Your task to perform on an android device: turn pop-ups off in chrome Image 0: 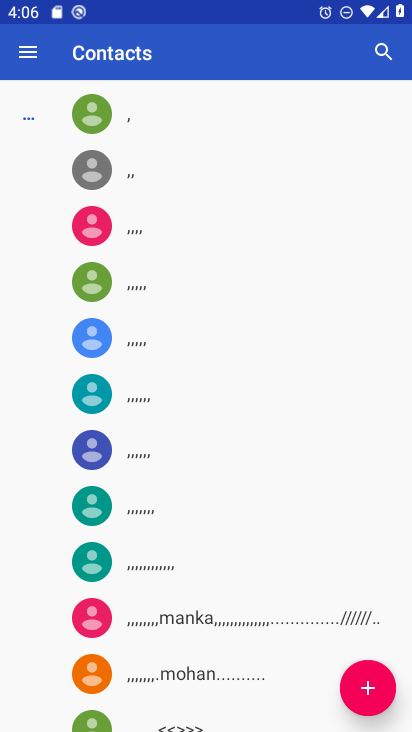
Step 0: press home button
Your task to perform on an android device: turn pop-ups off in chrome Image 1: 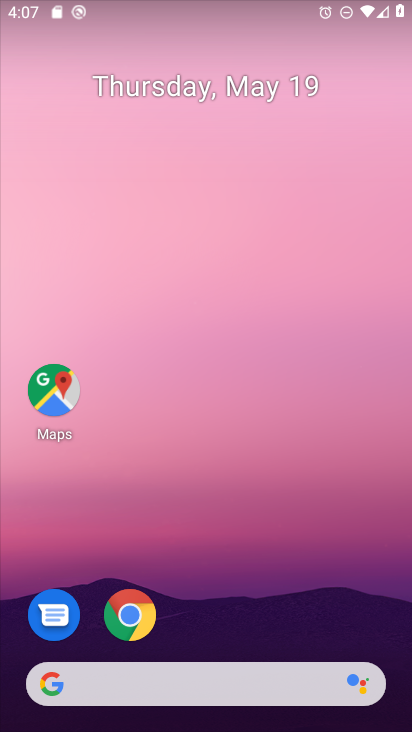
Step 1: drag from (288, 628) to (215, 230)
Your task to perform on an android device: turn pop-ups off in chrome Image 2: 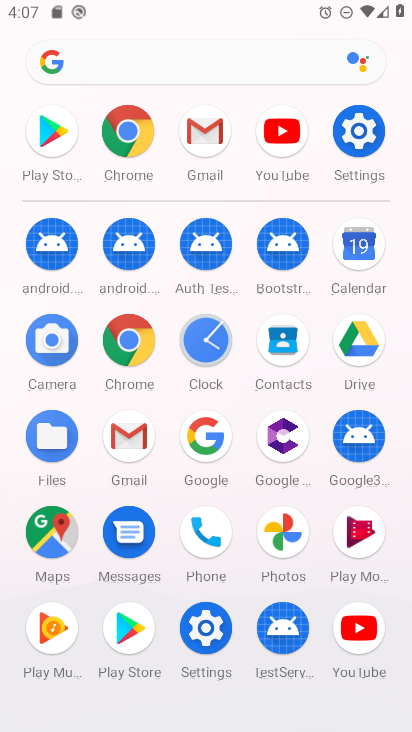
Step 2: click (121, 134)
Your task to perform on an android device: turn pop-ups off in chrome Image 3: 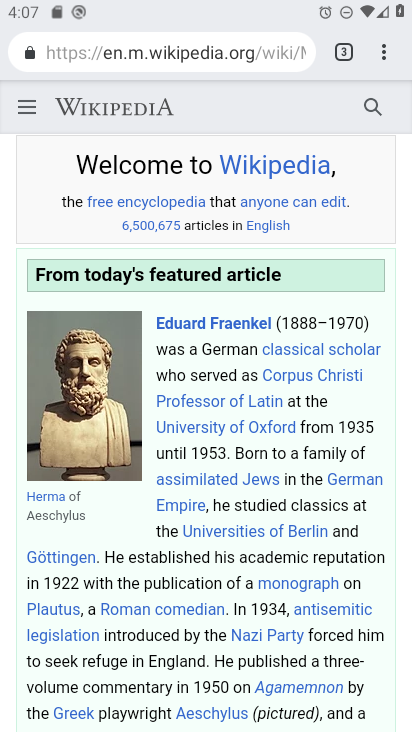
Step 3: click (388, 50)
Your task to perform on an android device: turn pop-ups off in chrome Image 4: 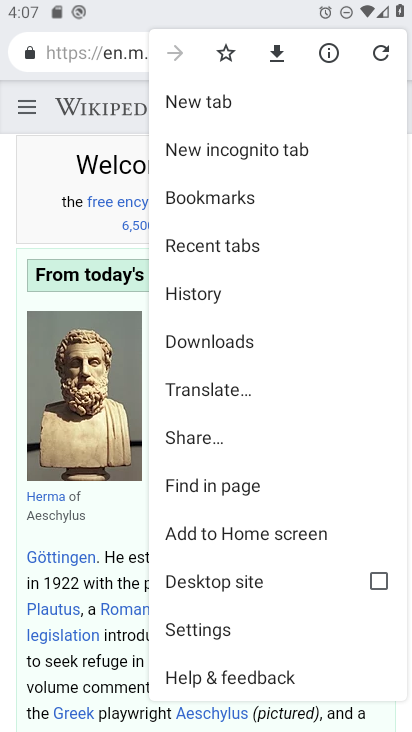
Step 4: click (286, 622)
Your task to perform on an android device: turn pop-ups off in chrome Image 5: 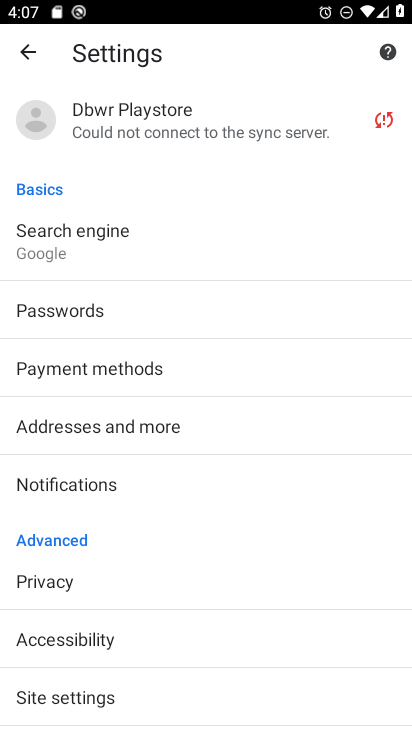
Step 5: click (198, 685)
Your task to perform on an android device: turn pop-ups off in chrome Image 6: 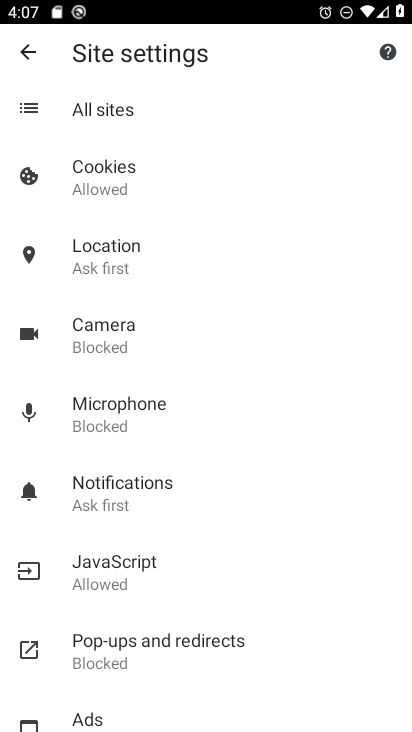
Step 6: click (206, 644)
Your task to perform on an android device: turn pop-ups off in chrome Image 7: 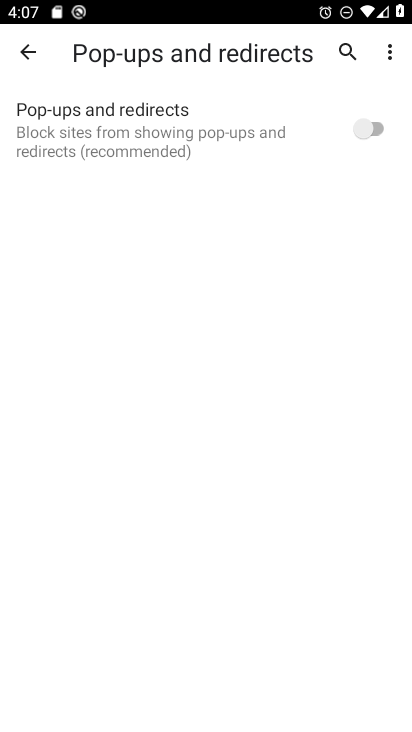
Step 7: task complete